Your task to perform on an android device: toggle notification dots Image 0: 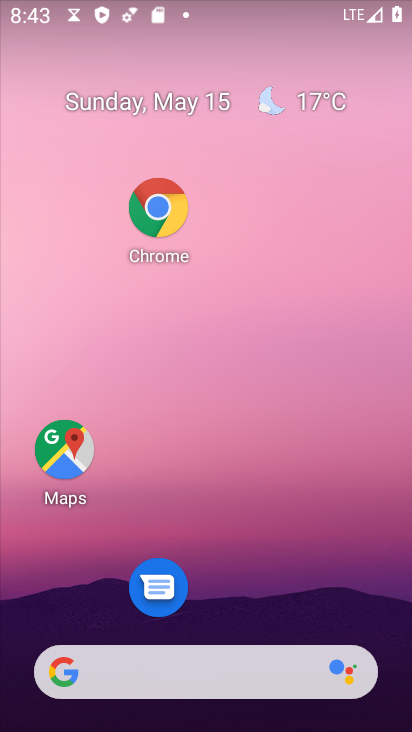
Step 0: drag from (319, 669) to (237, 146)
Your task to perform on an android device: toggle notification dots Image 1: 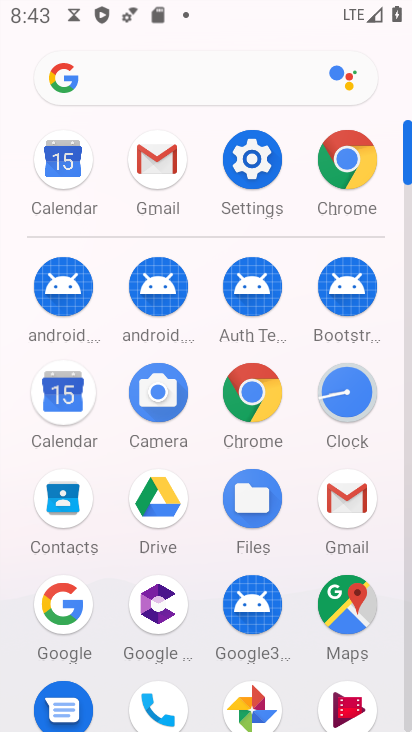
Step 1: click (253, 171)
Your task to perform on an android device: toggle notification dots Image 2: 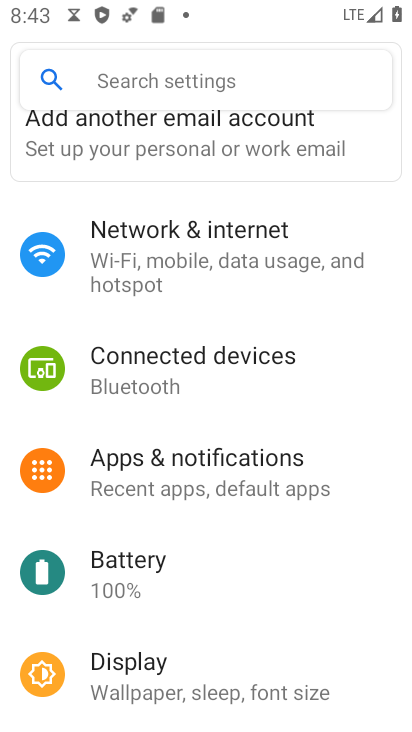
Step 2: click (157, 476)
Your task to perform on an android device: toggle notification dots Image 3: 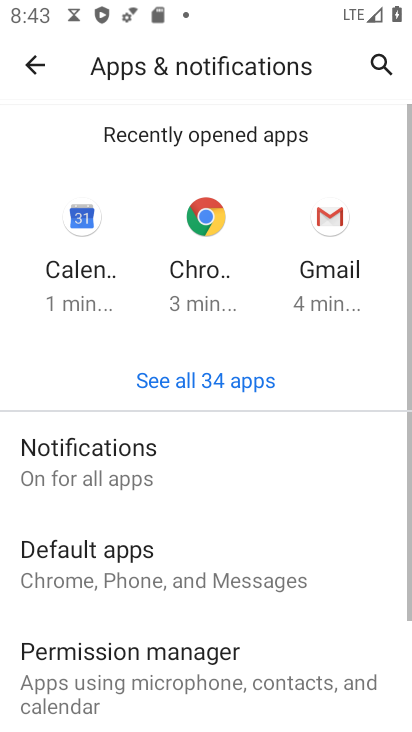
Step 3: click (100, 474)
Your task to perform on an android device: toggle notification dots Image 4: 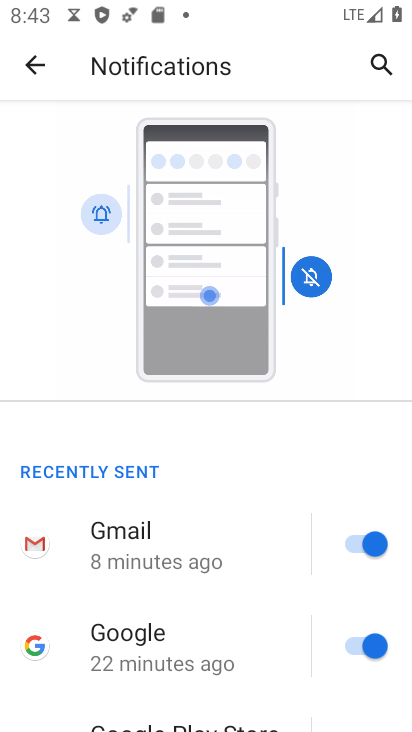
Step 4: drag from (183, 664) to (215, 263)
Your task to perform on an android device: toggle notification dots Image 5: 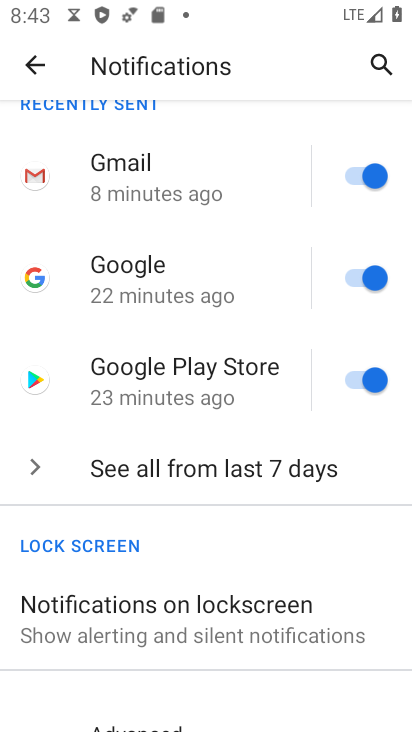
Step 5: drag from (124, 584) to (124, 280)
Your task to perform on an android device: toggle notification dots Image 6: 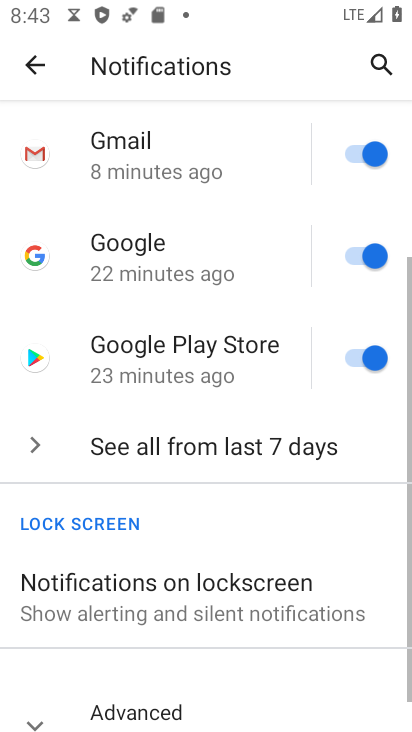
Step 6: drag from (225, 379) to (222, 5)
Your task to perform on an android device: toggle notification dots Image 7: 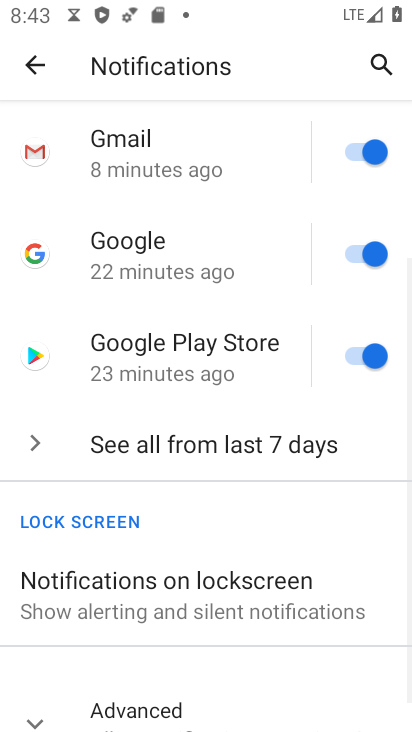
Step 7: drag from (197, 599) to (139, 36)
Your task to perform on an android device: toggle notification dots Image 8: 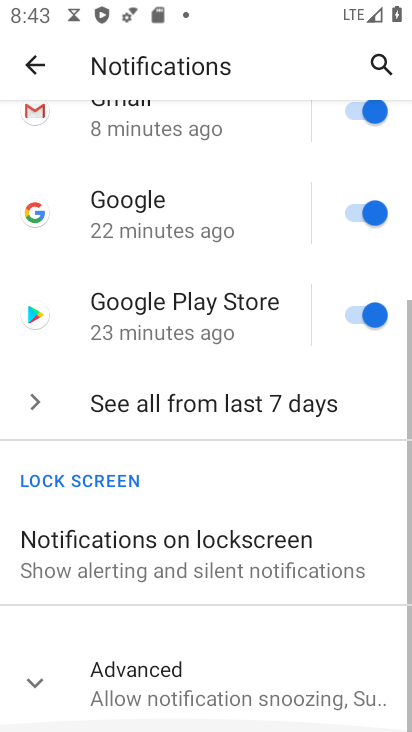
Step 8: drag from (184, 492) to (136, 126)
Your task to perform on an android device: toggle notification dots Image 9: 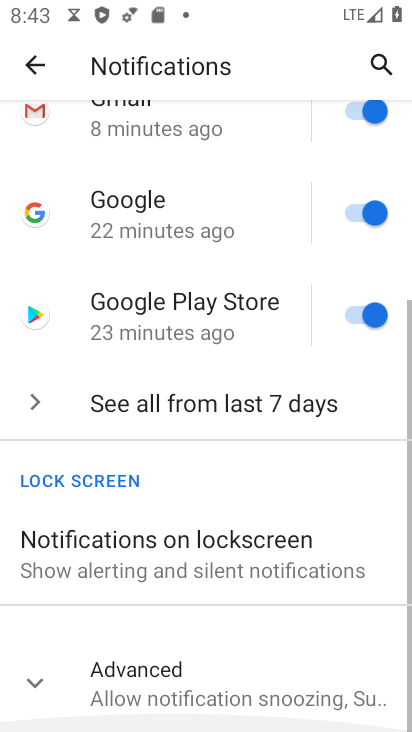
Step 9: drag from (227, 234) to (227, 18)
Your task to perform on an android device: toggle notification dots Image 10: 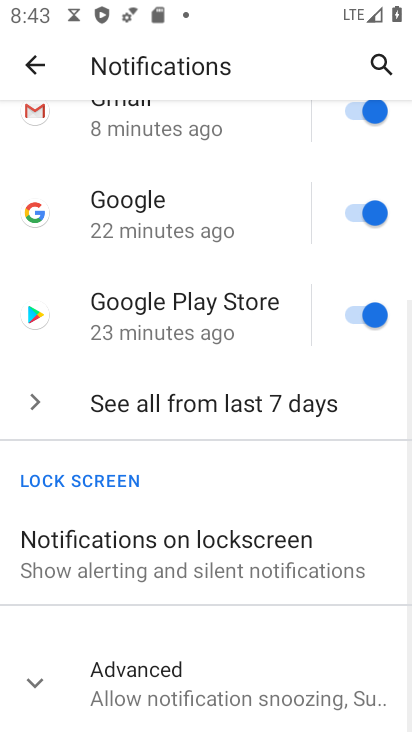
Step 10: drag from (221, 286) to (205, 141)
Your task to perform on an android device: toggle notification dots Image 11: 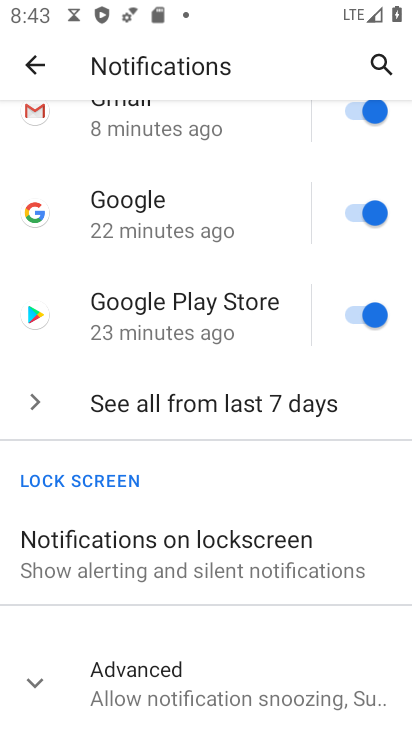
Step 11: click (127, 682)
Your task to perform on an android device: toggle notification dots Image 12: 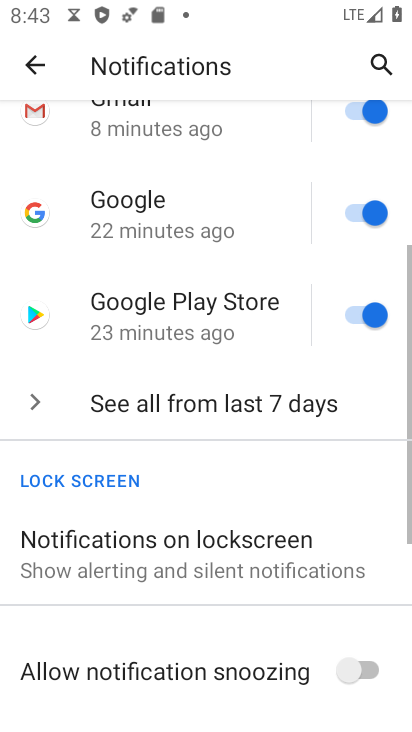
Step 12: drag from (282, 605) to (144, 85)
Your task to perform on an android device: toggle notification dots Image 13: 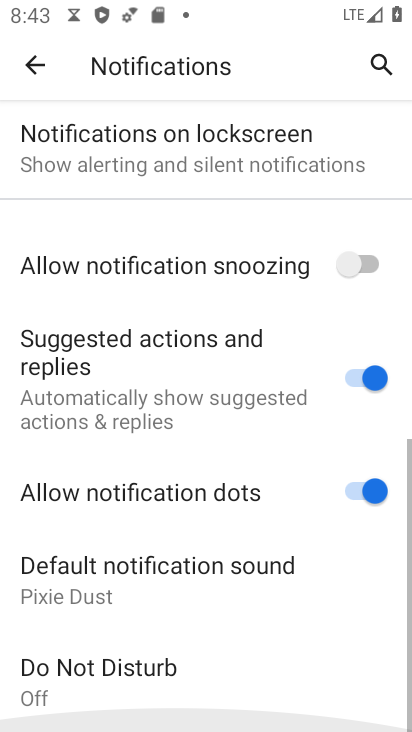
Step 13: drag from (247, 513) to (189, 51)
Your task to perform on an android device: toggle notification dots Image 14: 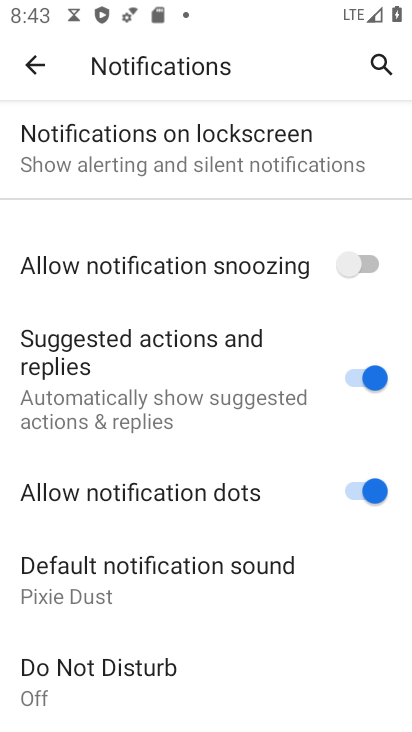
Step 14: click (372, 501)
Your task to perform on an android device: toggle notification dots Image 15: 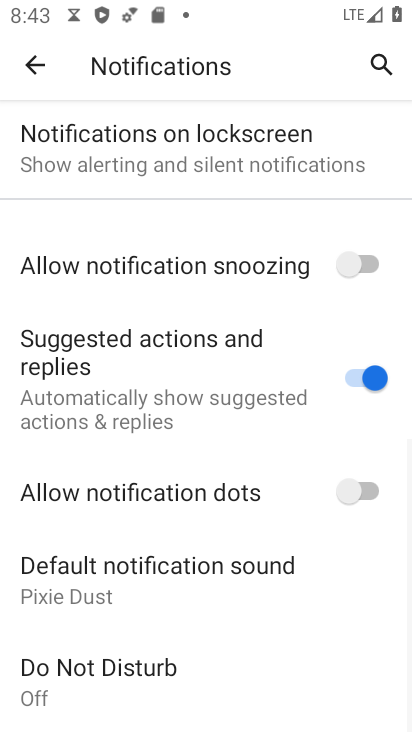
Step 15: task complete